Your task to perform on an android device: Open Google Image 0: 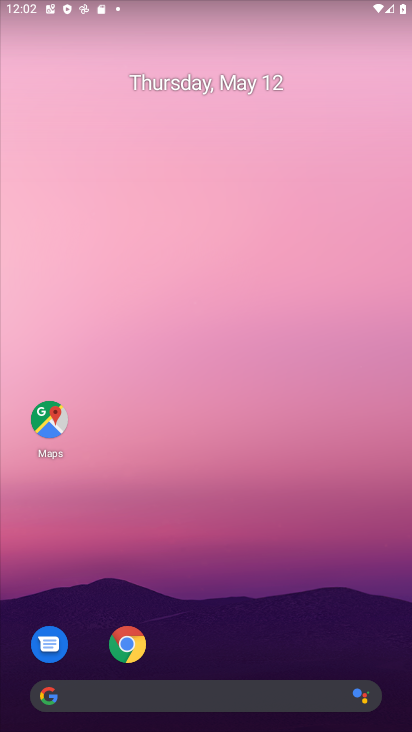
Step 0: click (149, 646)
Your task to perform on an android device: Open Google Image 1: 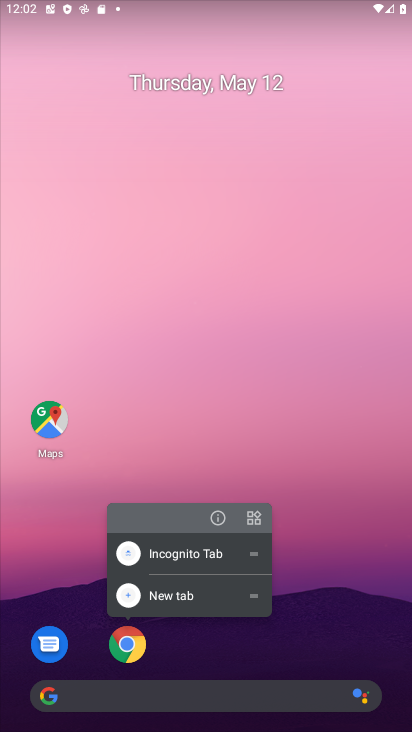
Step 1: click (149, 646)
Your task to perform on an android device: Open Google Image 2: 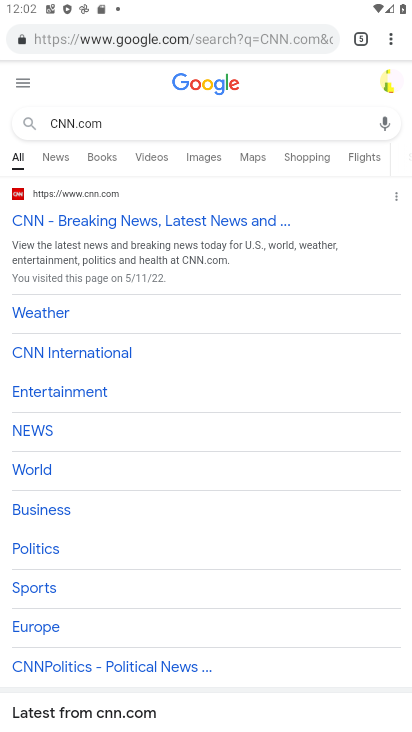
Step 2: task complete